Your task to perform on an android device: Go to settings Image 0: 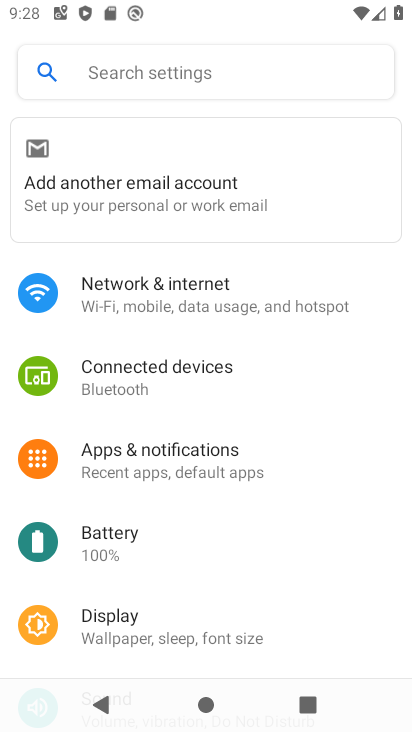
Step 0: press home button
Your task to perform on an android device: Go to settings Image 1: 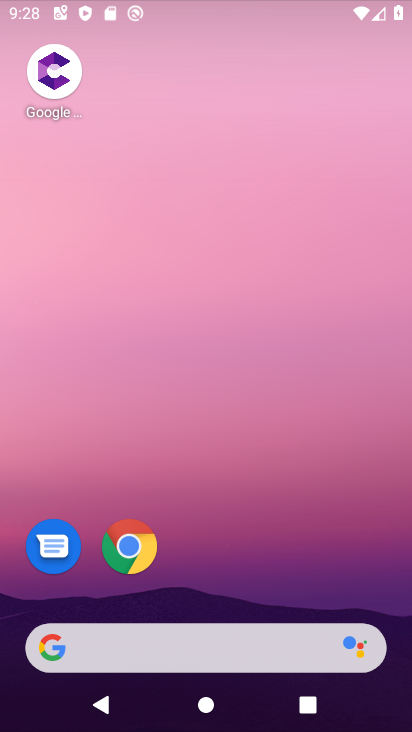
Step 1: drag from (397, 630) to (307, 61)
Your task to perform on an android device: Go to settings Image 2: 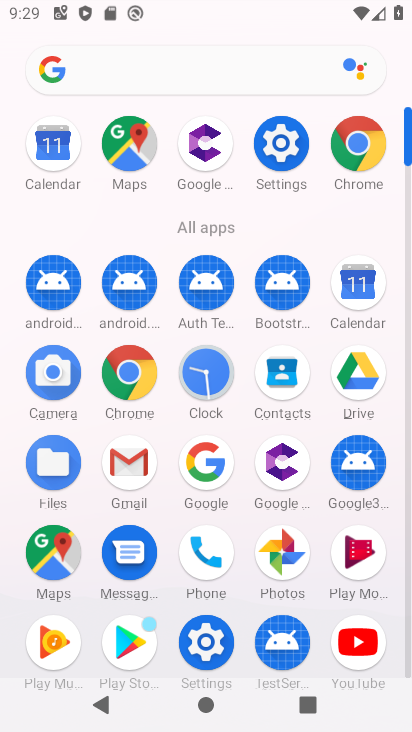
Step 2: click (219, 632)
Your task to perform on an android device: Go to settings Image 3: 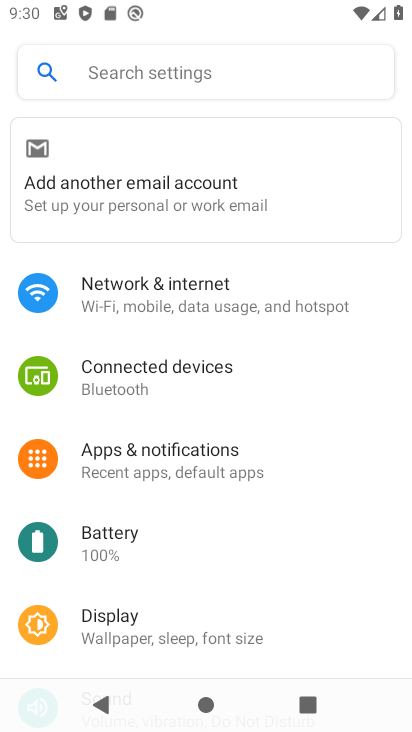
Step 3: task complete